Your task to perform on an android device: What's the weather today? Image 0: 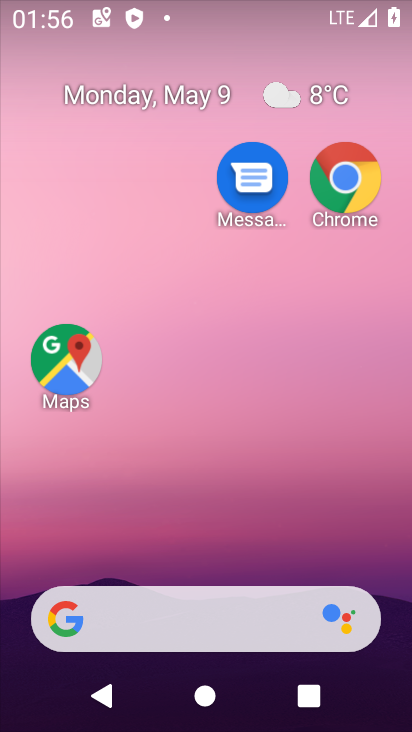
Step 0: drag from (159, 527) to (127, 148)
Your task to perform on an android device: What's the weather today? Image 1: 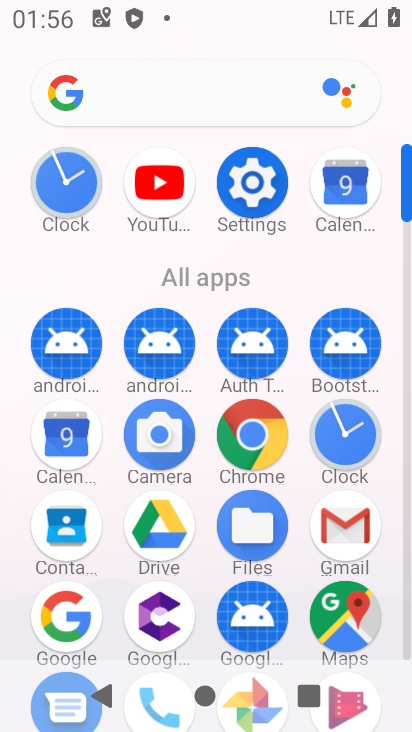
Step 1: drag from (260, 682) to (253, 340)
Your task to perform on an android device: What's the weather today? Image 2: 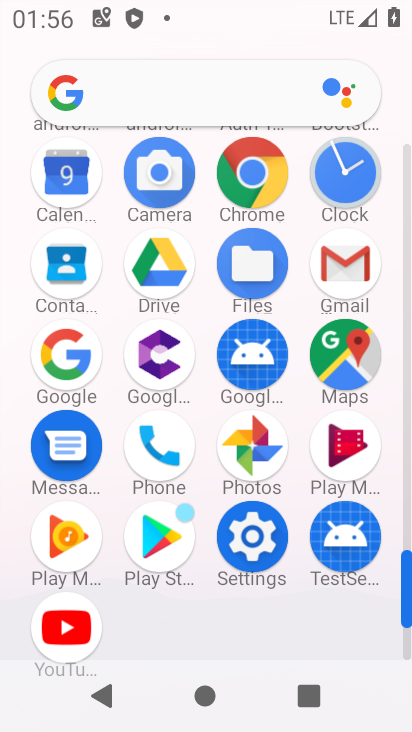
Step 2: drag from (277, 276) to (242, 672)
Your task to perform on an android device: What's the weather today? Image 3: 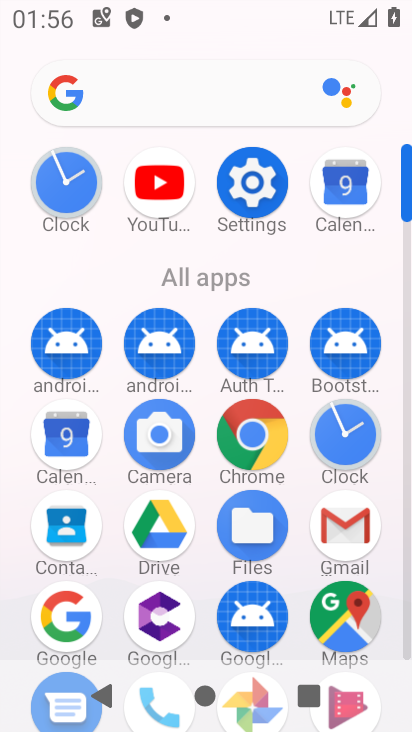
Step 3: click (355, 614)
Your task to perform on an android device: What's the weather today? Image 4: 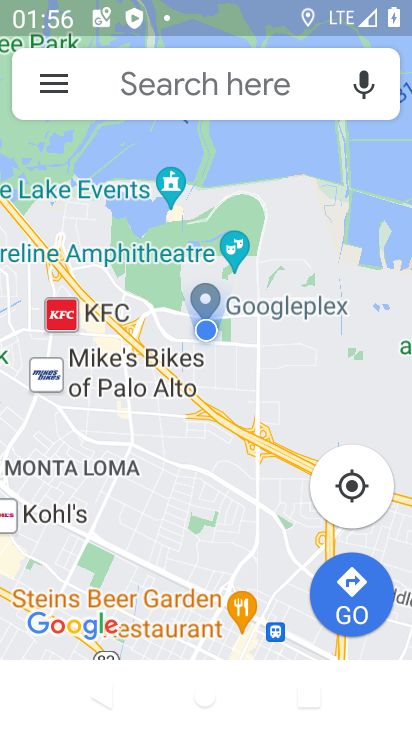
Step 4: click (67, 78)
Your task to perform on an android device: What's the weather today? Image 5: 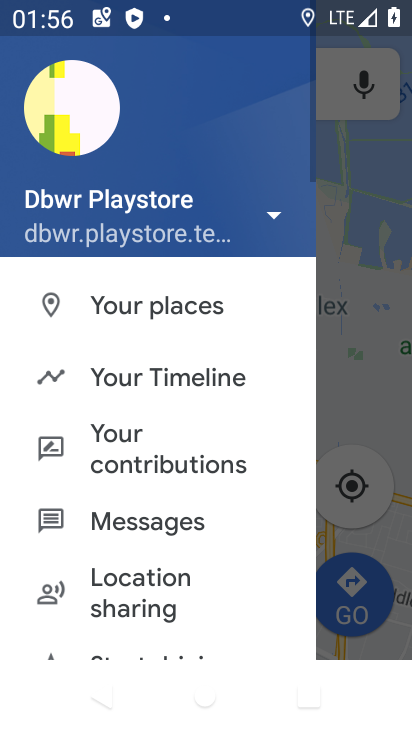
Step 5: drag from (142, 558) to (180, 180)
Your task to perform on an android device: What's the weather today? Image 6: 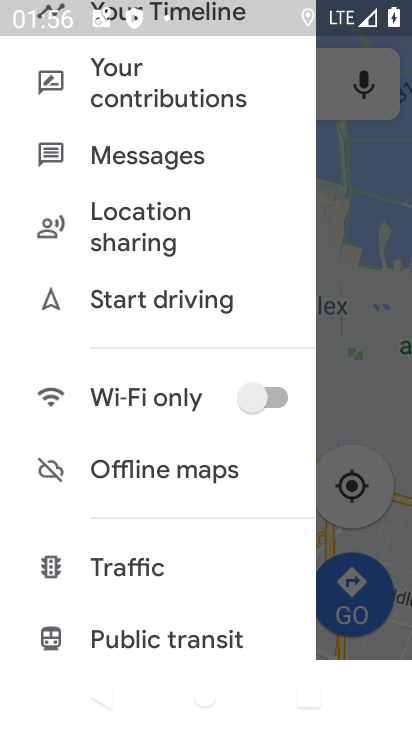
Step 6: drag from (181, 584) to (248, 171)
Your task to perform on an android device: What's the weather today? Image 7: 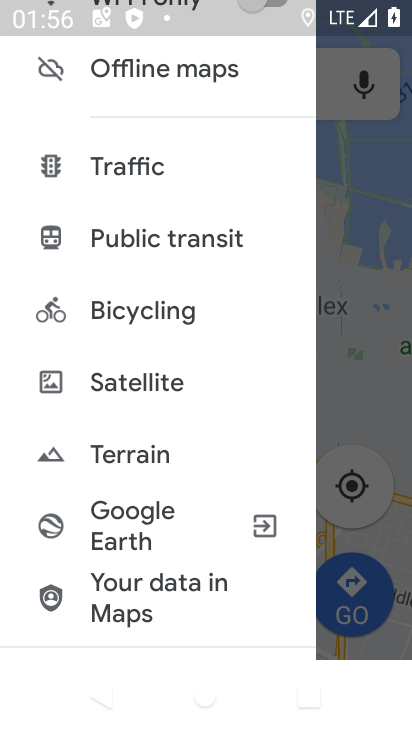
Step 7: drag from (160, 535) to (196, 194)
Your task to perform on an android device: What's the weather today? Image 8: 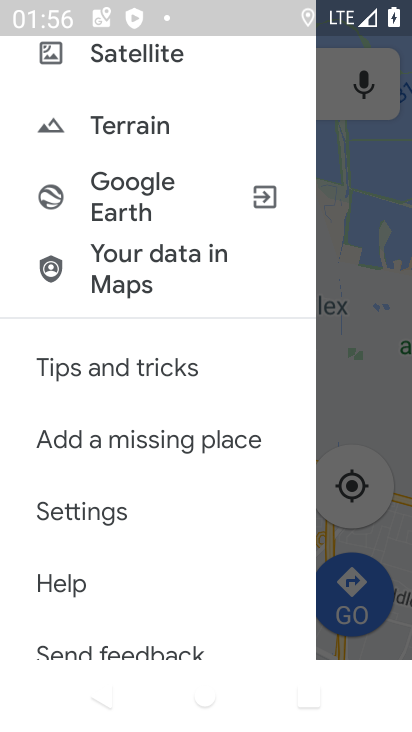
Step 8: drag from (202, 125) to (192, 611)
Your task to perform on an android device: What's the weather today? Image 9: 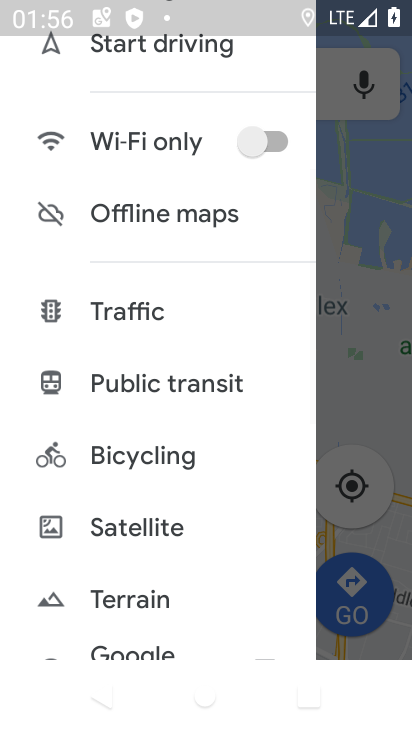
Step 9: drag from (197, 209) to (172, 724)
Your task to perform on an android device: What's the weather today? Image 10: 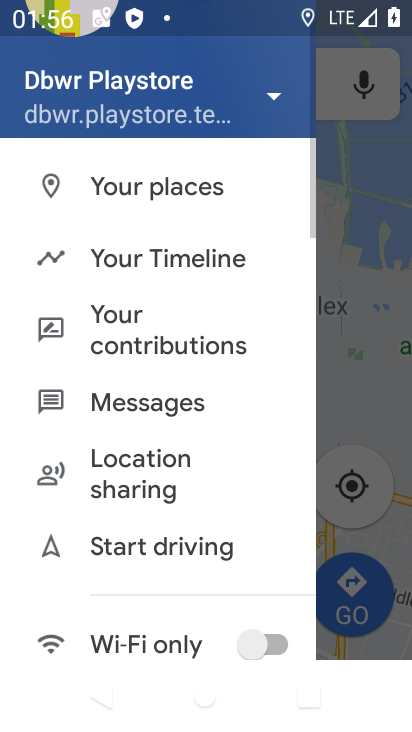
Step 10: drag from (229, 148) to (210, 730)
Your task to perform on an android device: What's the weather today? Image 11: 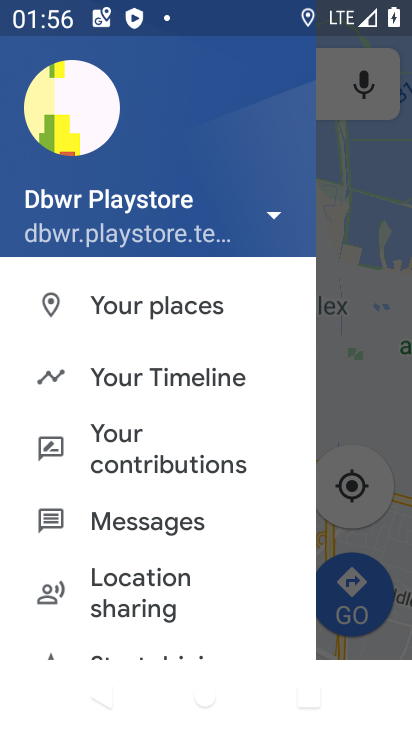
Step 11: press home button
Your task to perform on an android device: What's the weather today? Image 12: 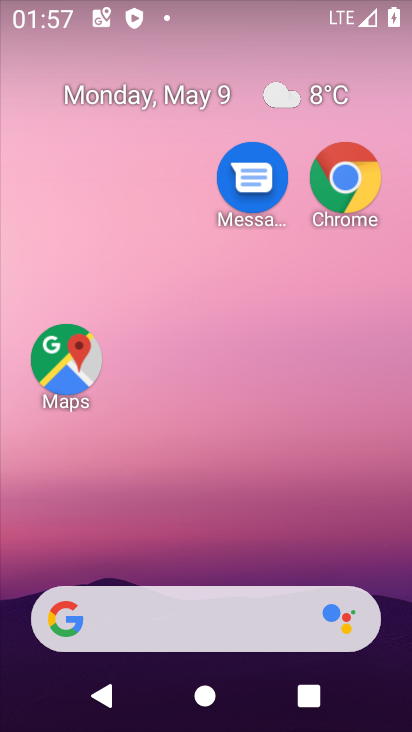
Step 12: click (93, 615)
Your task to perform on an android device: What's the weather today? Image 13: 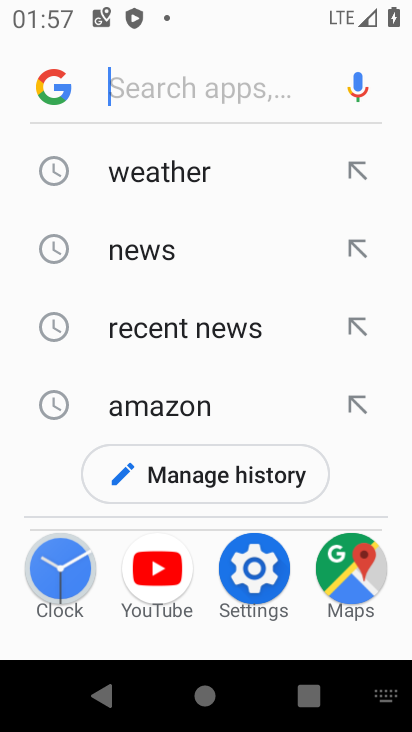
Step 13: click (101, 166)
Your task to perform on an android device: What's the weather today? Image 14: 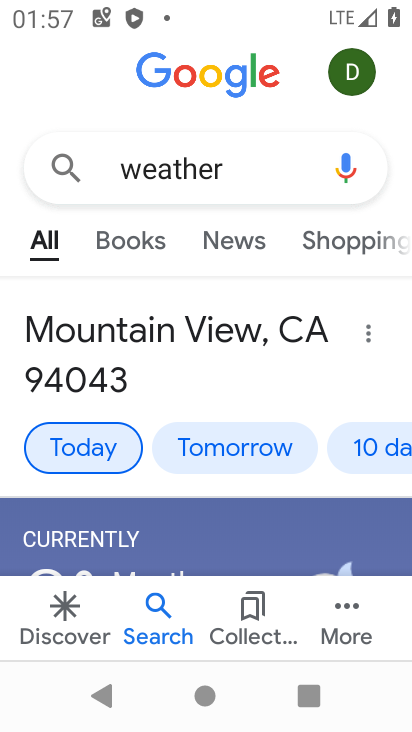
Step 14: click (69, 433)
Your task to perform on an android device: What's the weather today? Image 15: 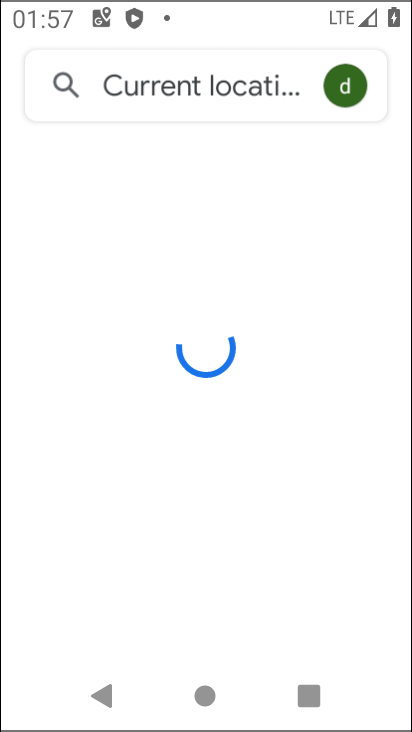
Step 15: task complete